Your task to perform on an android device: find which apps use the phone's location Image 0: 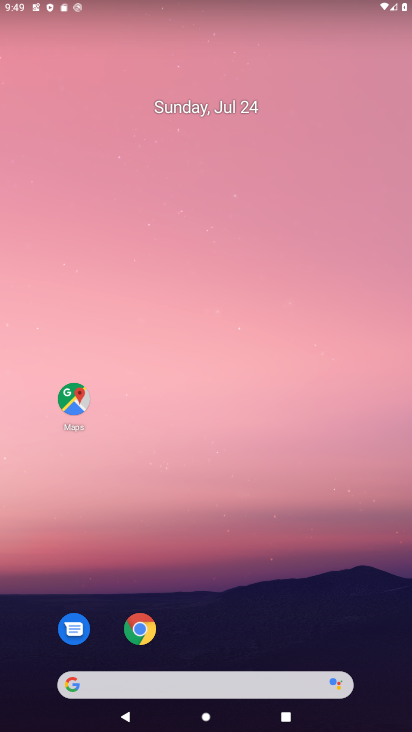
Step 0: click (308, 659)
Your task to perform on an android device: find which apps use the phone's location Image 1: 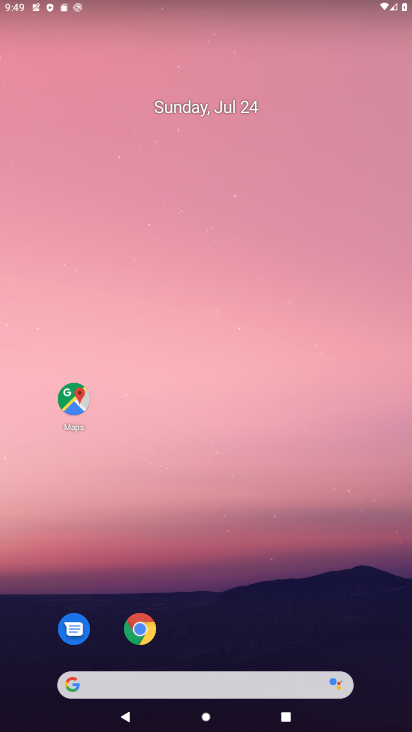
Step 1: drag from (308, 659) to (250, 47)
Your task to perform on an android device: find which apps use the phone's location Image 2: 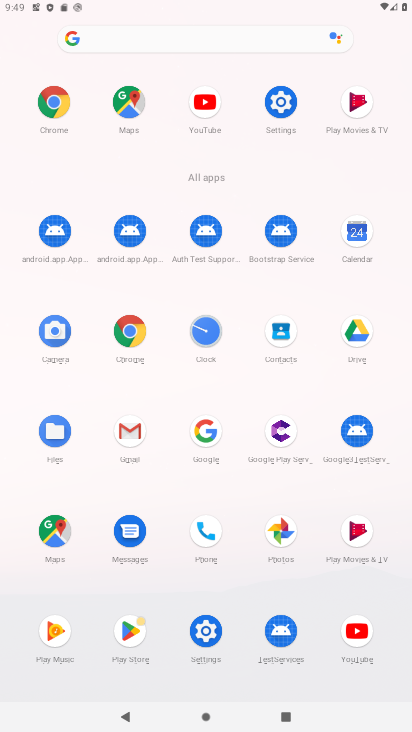
Step 2: click (297, 133)
Your task to perform on an android device: find which apps use the phone's location Image 3: 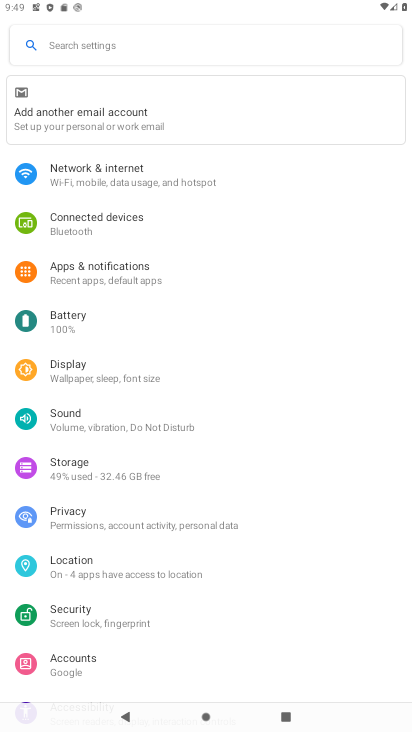
Step 3: click (199, 558)
Your task to perform on an android device: find which apps use the phone's location Image 4: 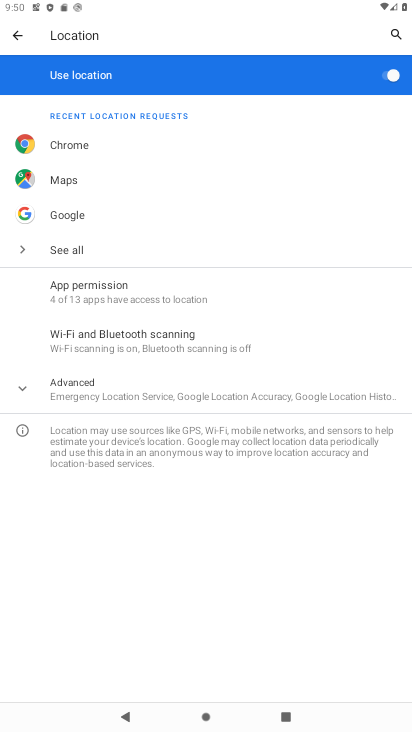
Step 4: click (177, 403)
Your task to perform on an android device: find which apps use the phone's location Image 5: 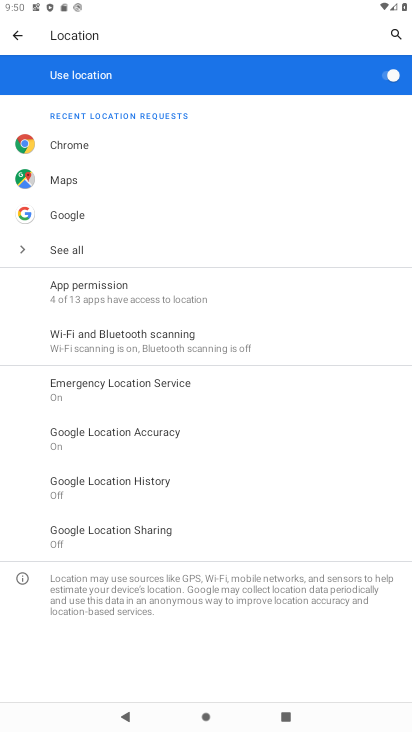
Step 5: task complete